Your task to perform on an android device: check out phone information Image 0: 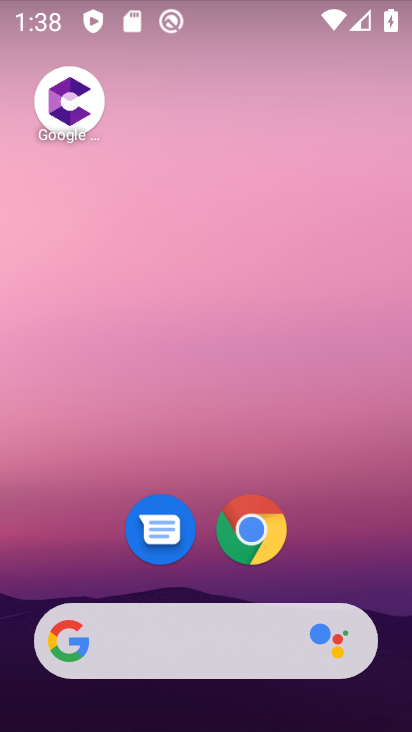
Step 0: drag from (200, 564) to (202, 24)
Your task to perform on an android device: check out phone information Image 1: 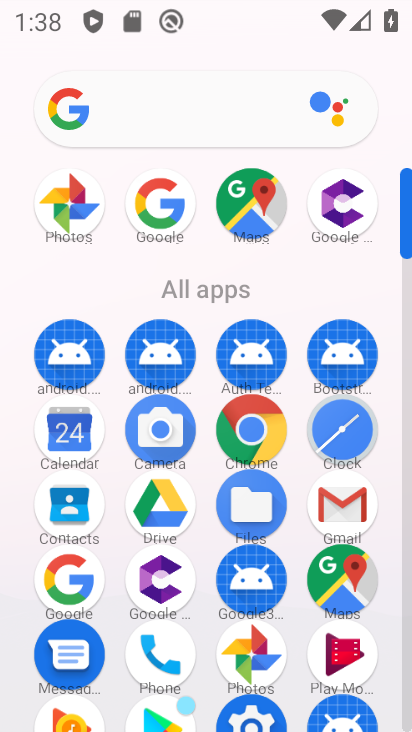
Step 1: click (248, 719)
Your task to perform on an android device: check out phone information Image 2: 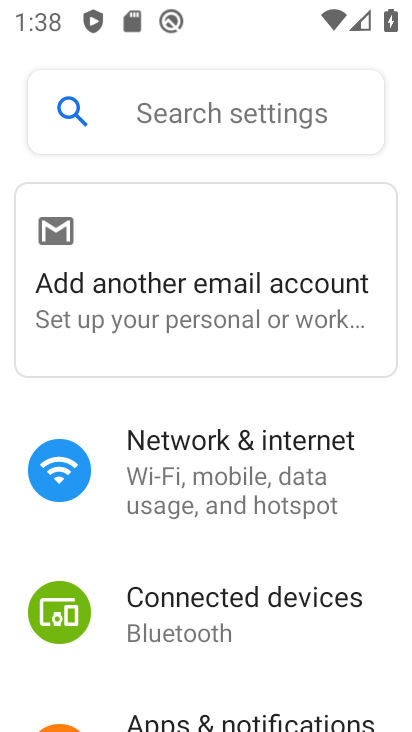
Step 2: drag from (270, 642) to (266, 6)
Your task to perform on an android device: check out phone information Image 3: 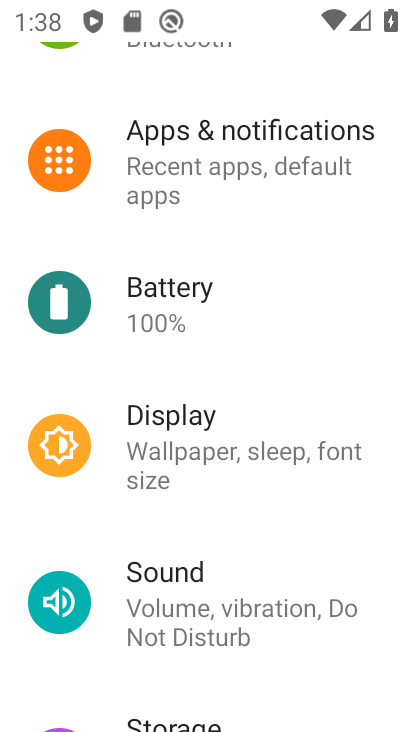
Step 3: drag from (257, 636) to (216, 20)
Your task to perform on an android device: check out phone information Image 4: 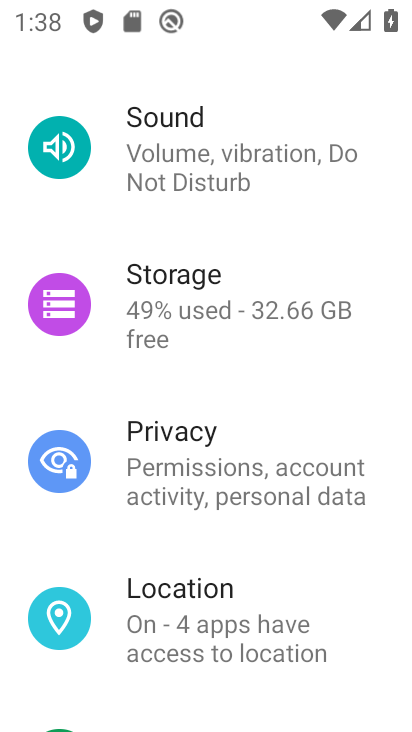
Step 4: drag from (263, 594) to (230, 27)
Your task to perform on an android device: check out phone information Image 5: 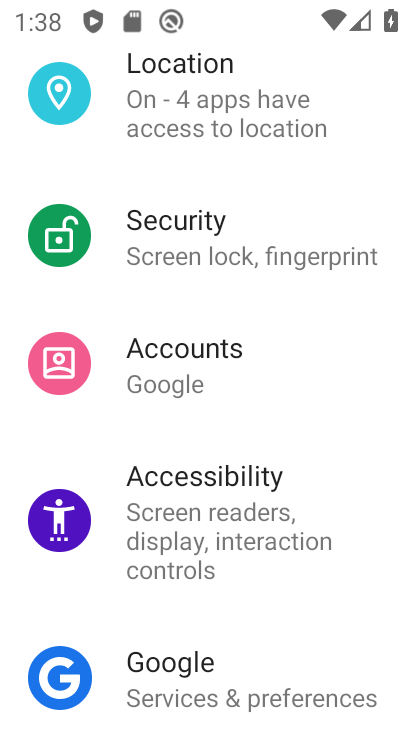
Step 5: drag from (229, 633) to (230, 88)
Your task to perform on an android device: check out phone information Image 6: 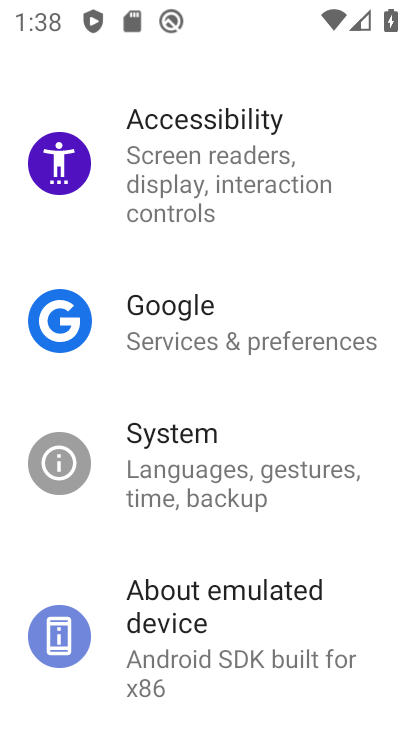
Step 6: click (175, 664)
Your task to perform on an android device: check out phone information Image 7: 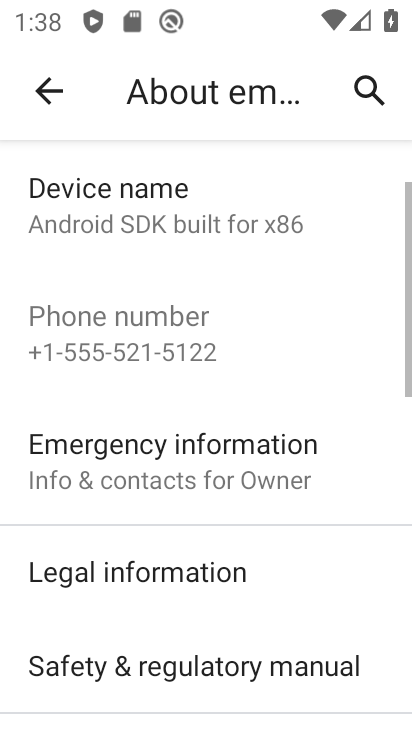
Step 7: task complete